Your task to perform on an android device: Go to battery settings Image 0: 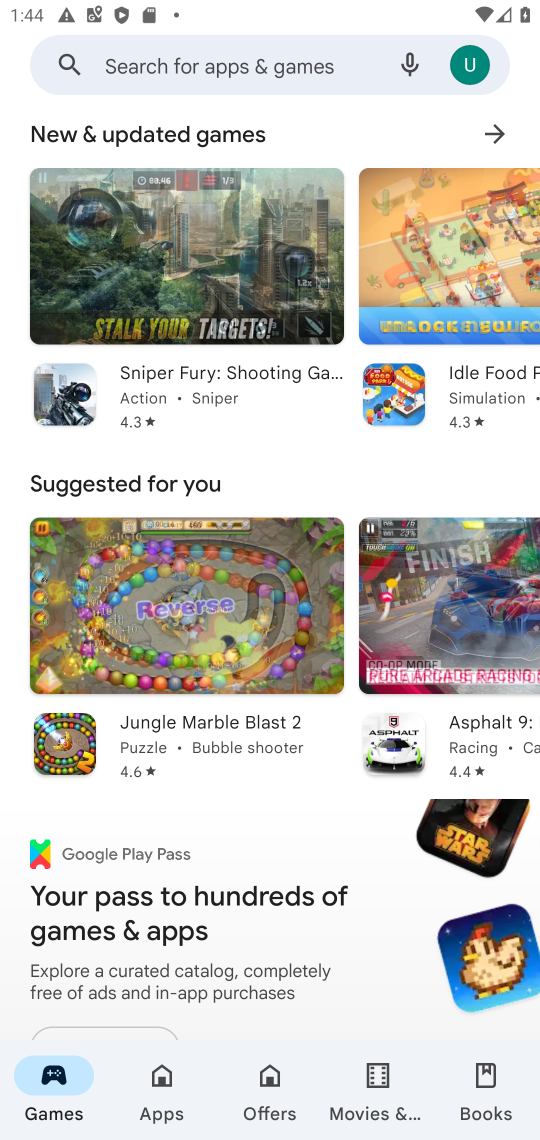
Step 0: press home button
Your task to perform on an android device: Go to battery settings Image 1: 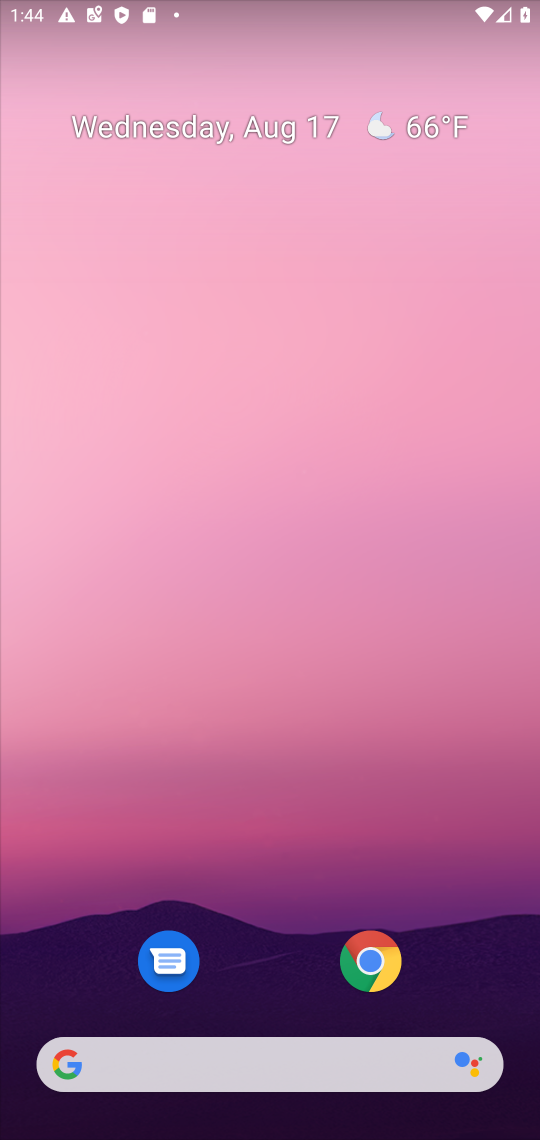
Step 1: drag from (335, 272) to (340, 151)
Your task to perform on an android device: Go to battery settings Image 2: 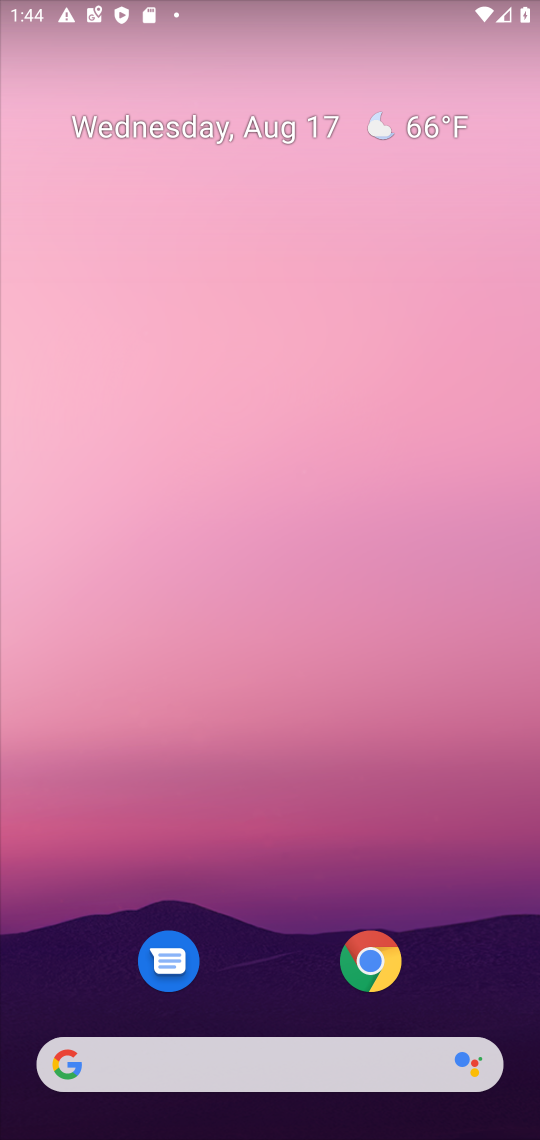
Step 2: drag from (243, 896) to (374, 187)
Your task to perform on an android device: Go to battery settings Image 3: 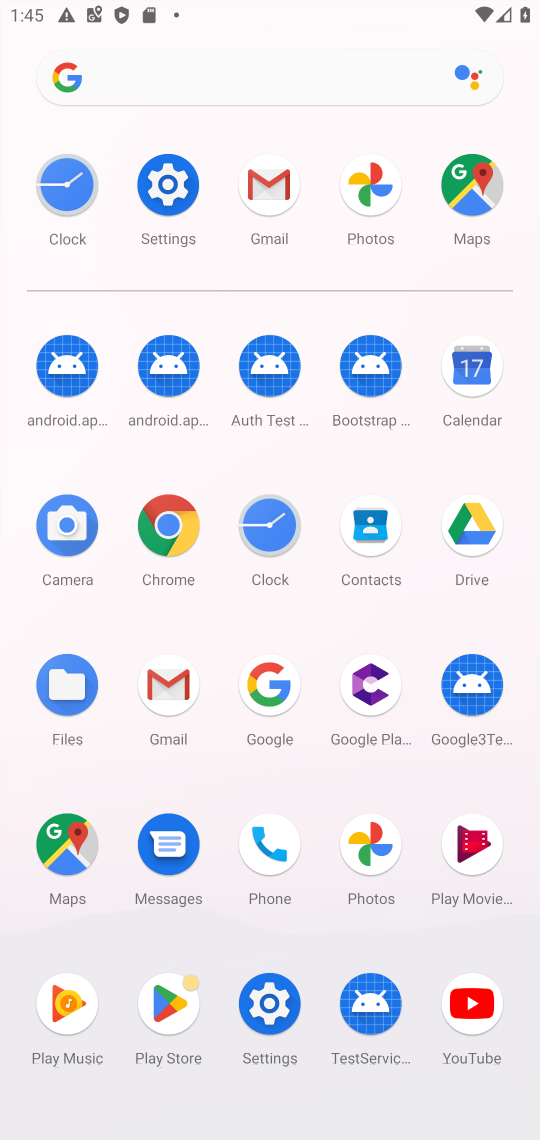
Step 3: click (273, 1029)
Your task to perform on an android device: Go to battery settings Image 4: 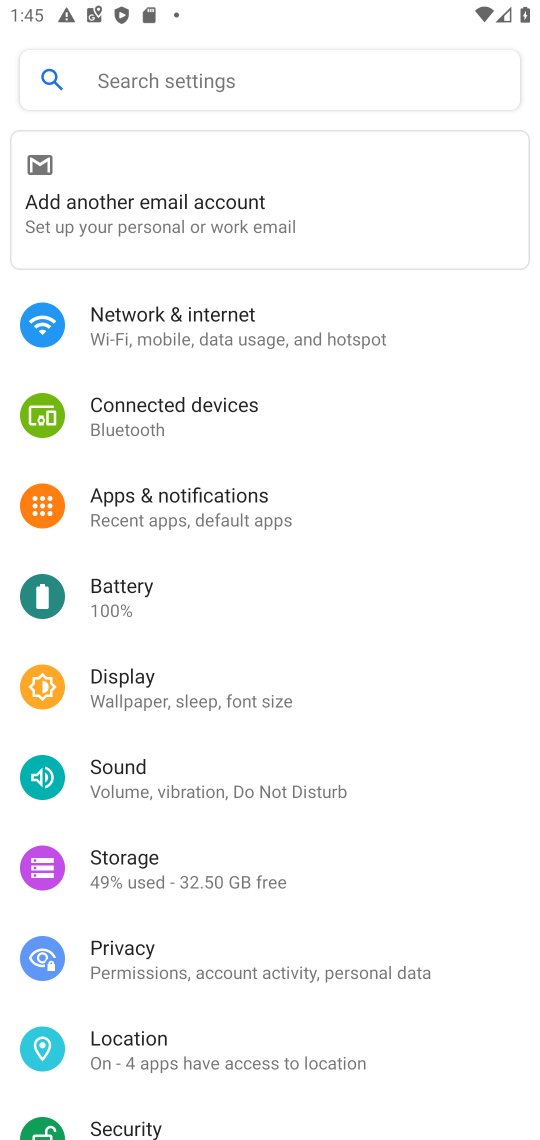
Step 4: click (194, 589)
Your task to perform on an android device: Go to battery settings Image 5: 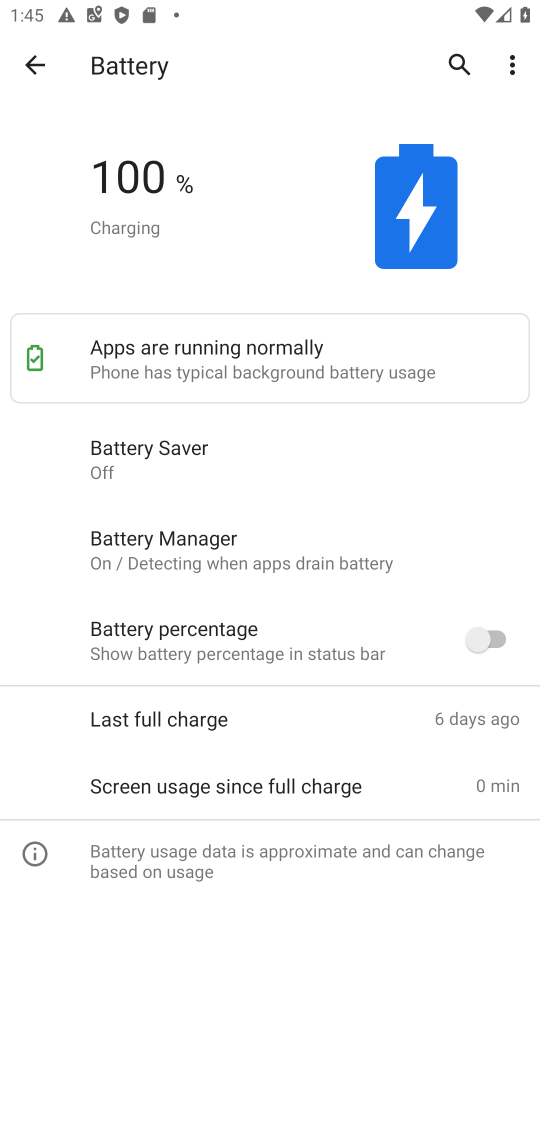
Step 5: task complete